Your task to perform on an android device: set default search engine in the chrome app Image 0: 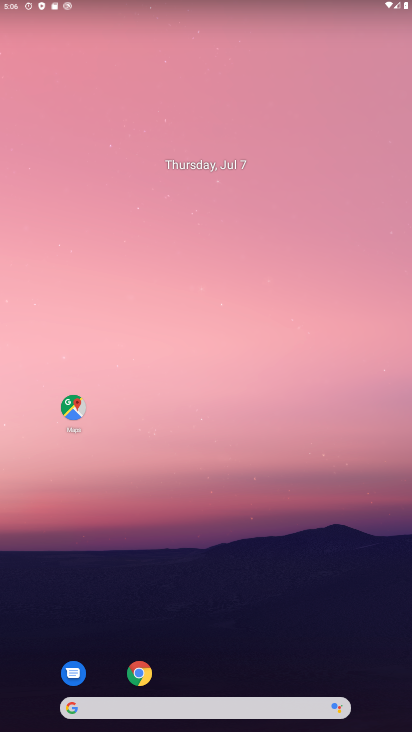
Step 0: drag from (311, 555) to (407, 621)
Your task to perform on an android device: set default search engine in the chrome app Image 1: 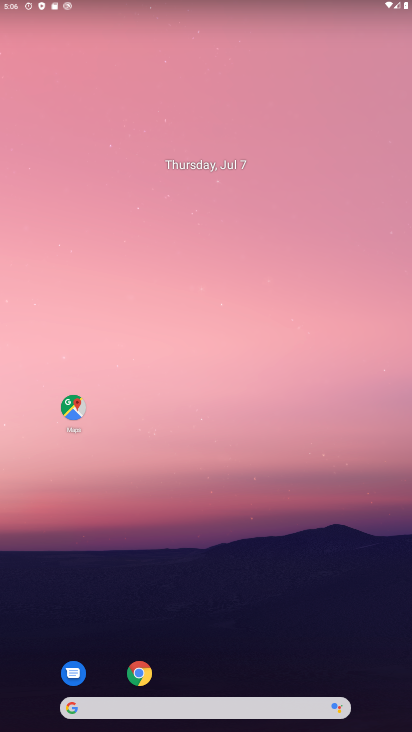
Step 1: drag from (178, 639) to (183, 69)
Your task to perform on an android device: set default search engine in the chrome app Image 2: 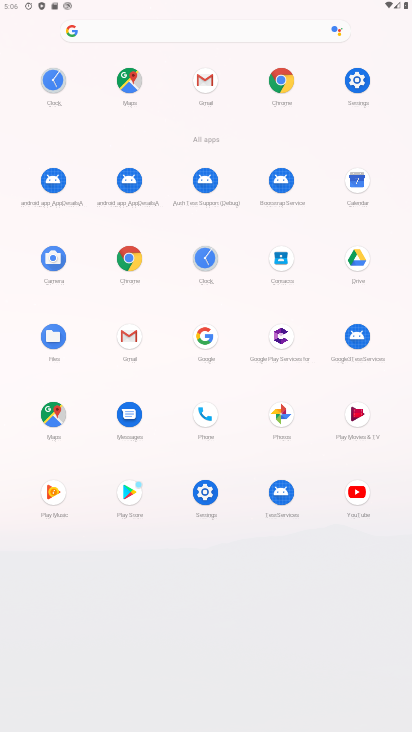
Step 2: click (137, 258)
Your task to perform on an android device: set default search engine in the chrome app Image 3: 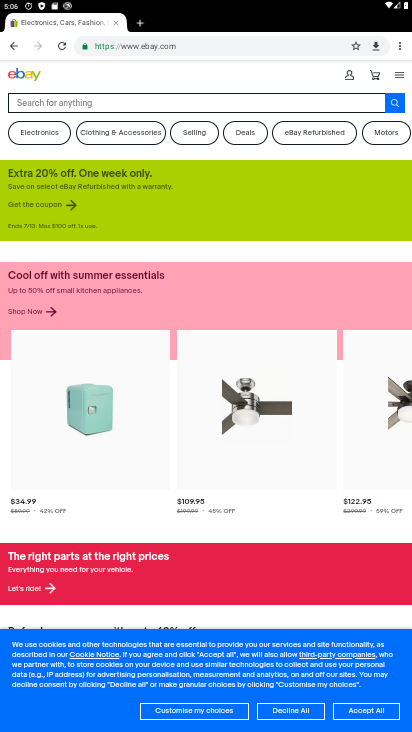
Step 3: click (399, 42)
Your task to perform on an android device: set default search engine in the chrome app Image 4: 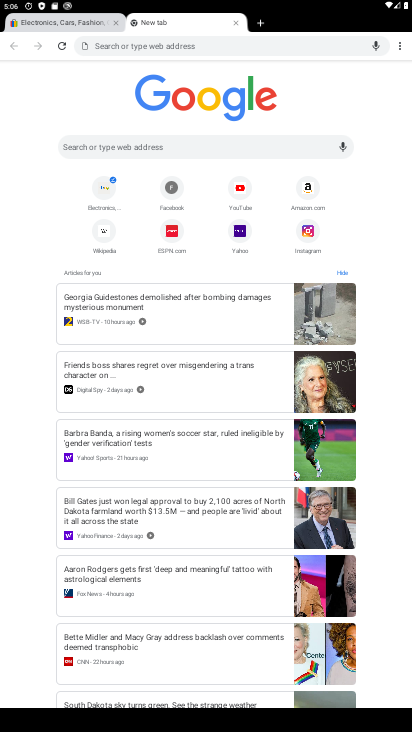
Step 4: drag from (398, 45) to (306, 216)
Your task to perform on an android device: set default search engine in the chrome app Image 5: 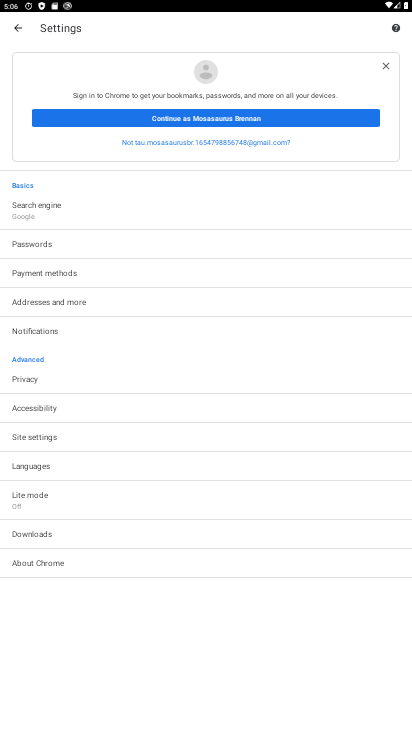
Step 5: click (53, 212)
Your task to perform on an android device: set default search engine in the chrome app Image 6: 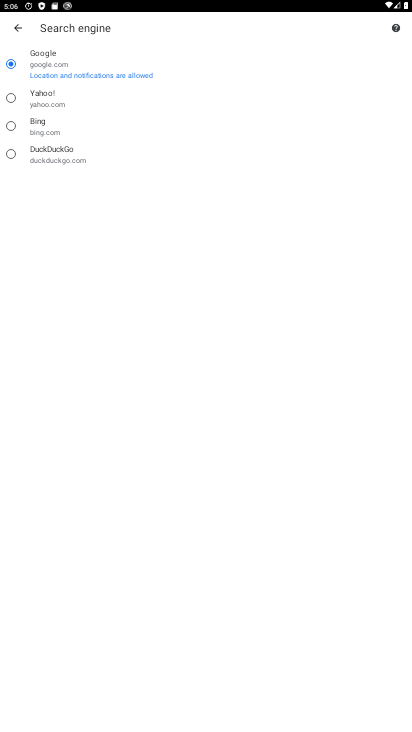
Step 6: task complete